Your task to perform on an android device: turn off improve location accuracy Image 0: 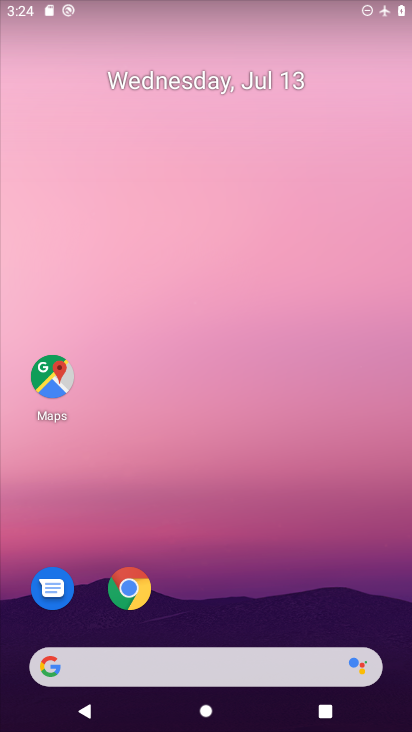
Step 0: drag from (208, 629) to (195, 99)
Your task to perform on an android device: turn off improve location accuracy Image 1: 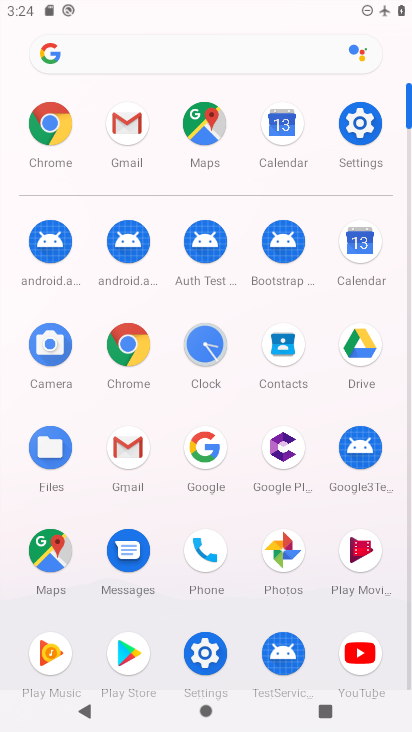
Step 1: click (374, 125)
Your task to perform on an android device: turn off improve location accuracy Image 2: 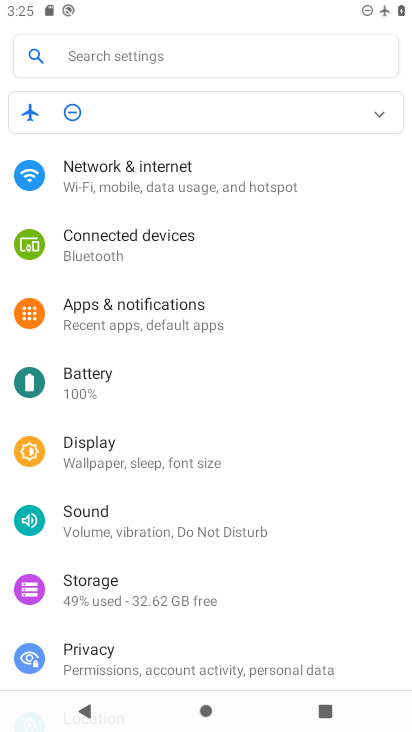
Step 2: drag from (110, 641) to (110, 247)
Your task to perform on an android device: turn off improve location accuracy Image 3: 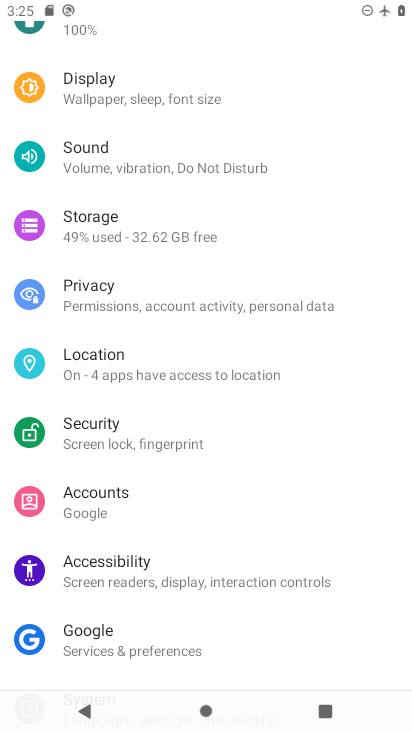
Step 3: click (101, 374)
Your task to perform on an android device: turn off improve location accuracy Image 4: 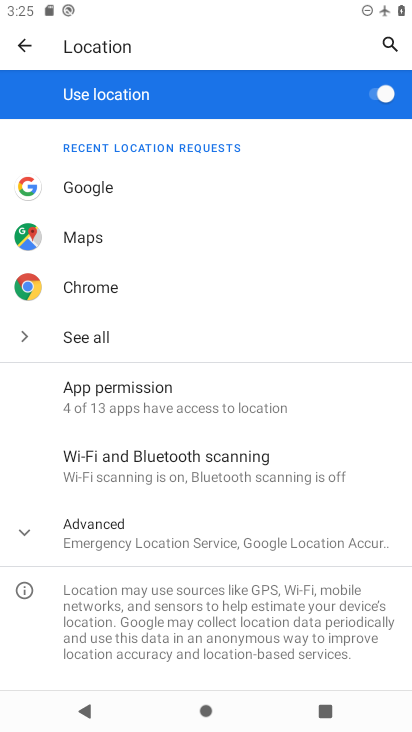
Step 4: click (155, 530)
Your task to perform on an android device: turn off improve location accuracy Image 5: 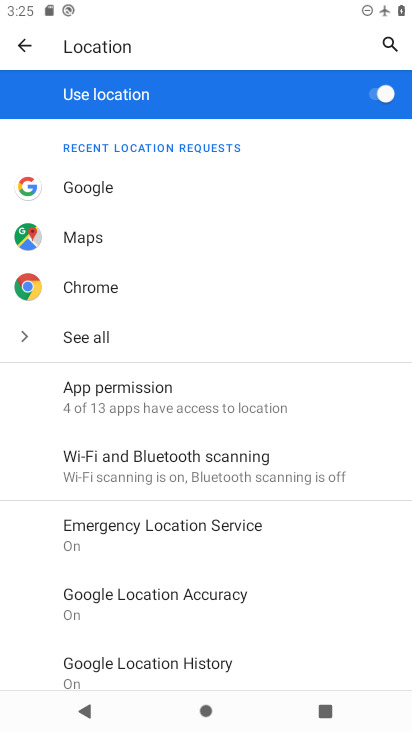
Step 5: click (216, 593)
Your task to perform on an android device: turn off improve location accuracy Image 6: 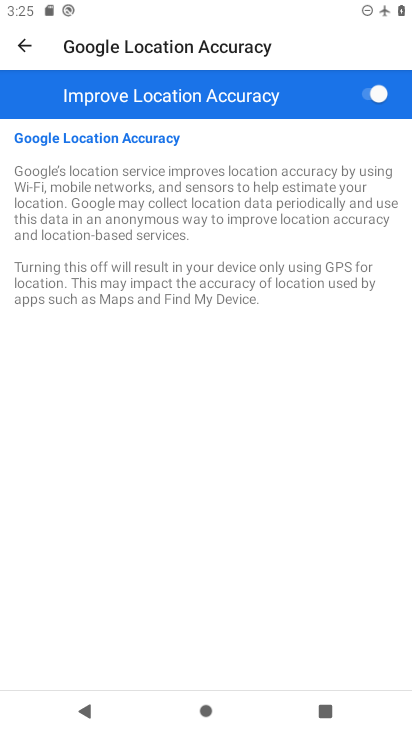
Step 6: click (366, 93)
Your task to perform on an android device: turn off improve location accuracy Image 7: 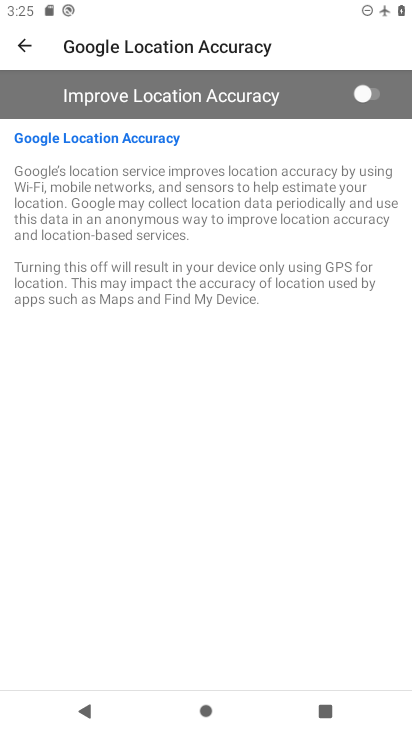
Step 7: task complete